Your task to perform on an android device: Check the news Image 0: 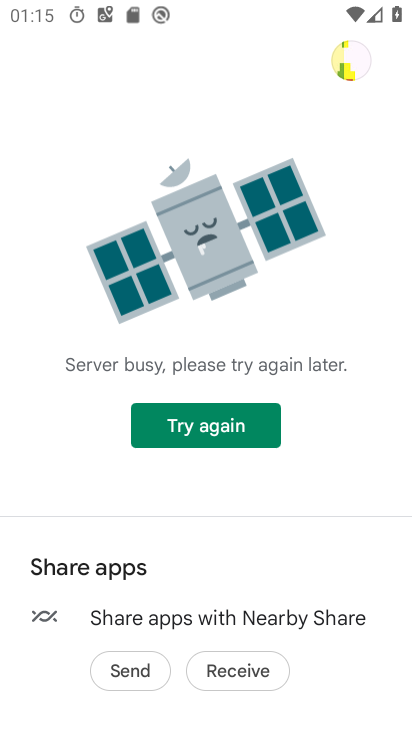
Step 0: press home button
Your task to perform on an android device: Check the news Image 1: 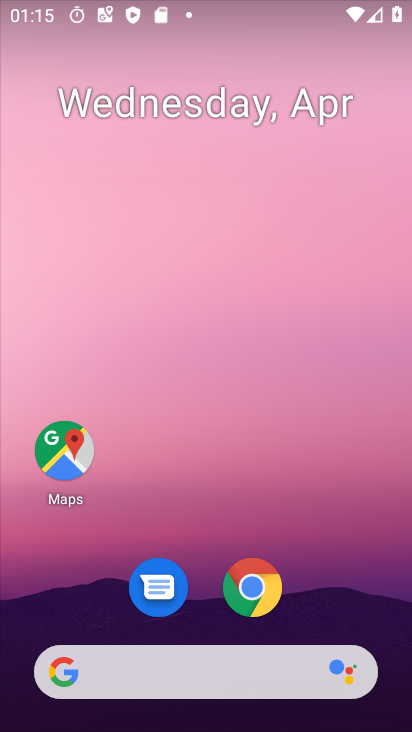
Step 1: task complete